Your task to perform on an android device: What's the news in Puerto Rico? Image 0: 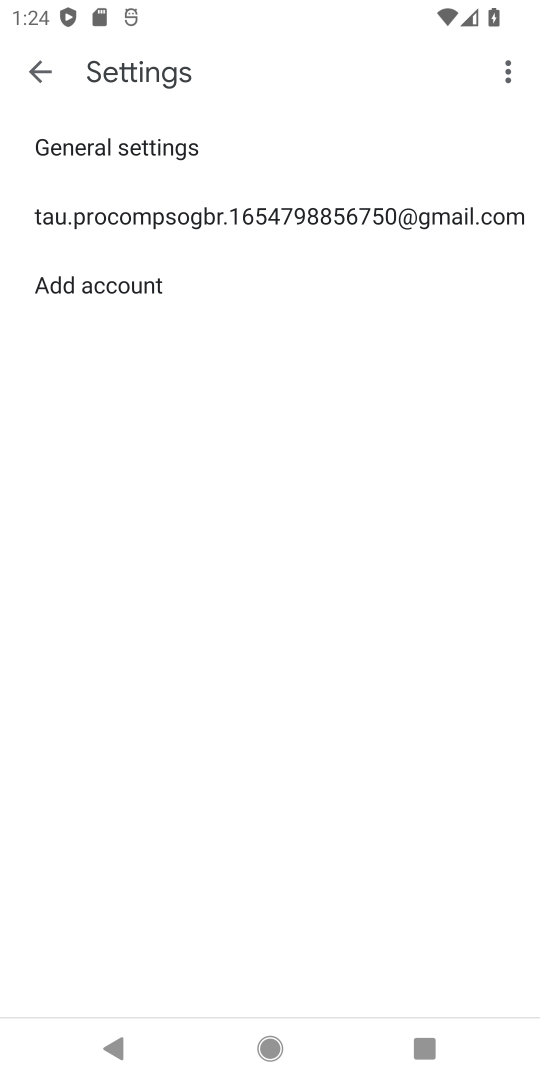
Step 0: press home button
Your task to perform on an android device: What's the news in Puerto Rico? Image 1: 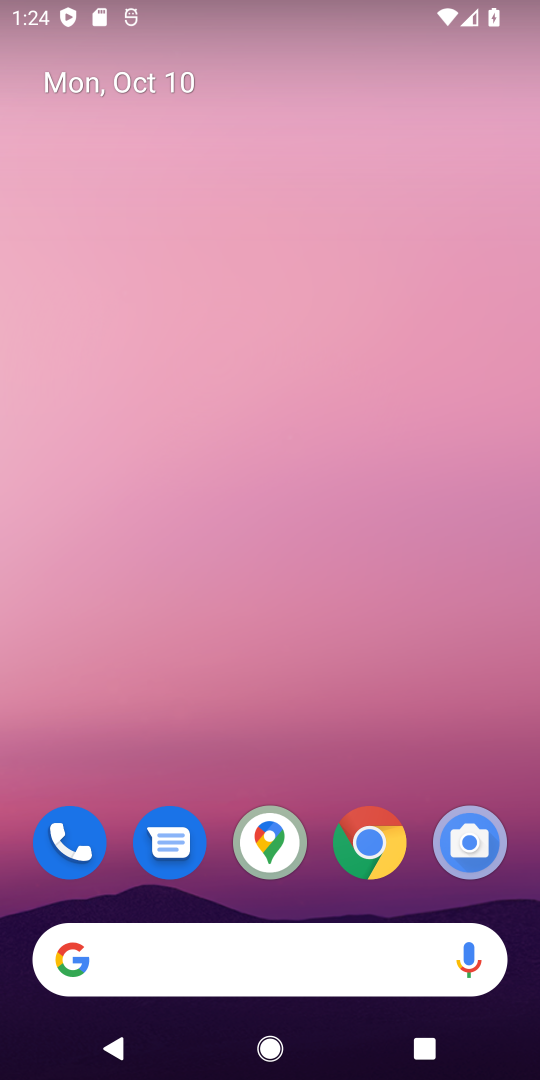
Step 1: click (372, 845)
Your task to perform on an android device: What's the news in Puerto Rico? Image 2: 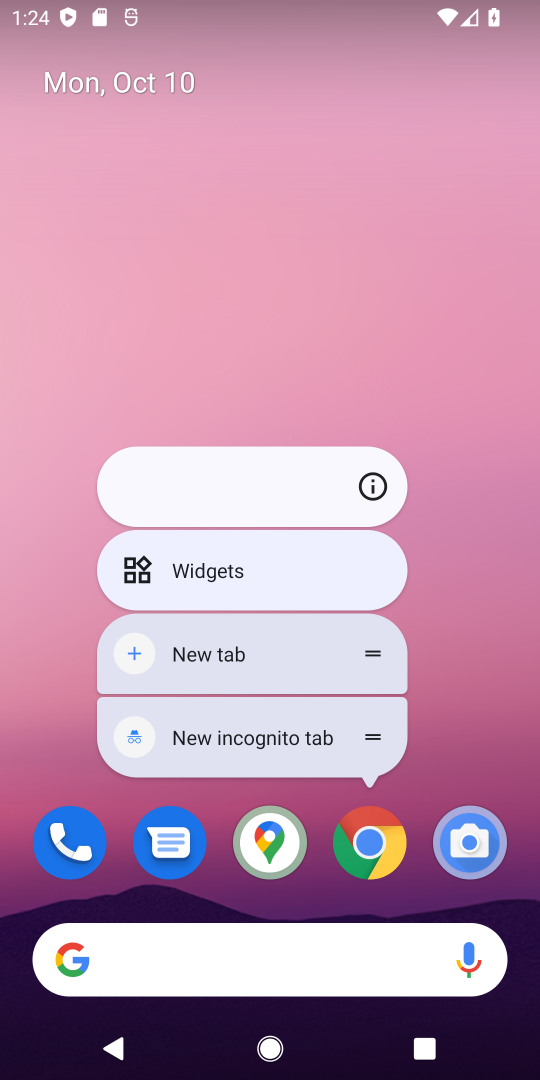
Step 2: click (385, 855)
Your task to perform on an android device: What's the news in Puerto Rico? Image 3: 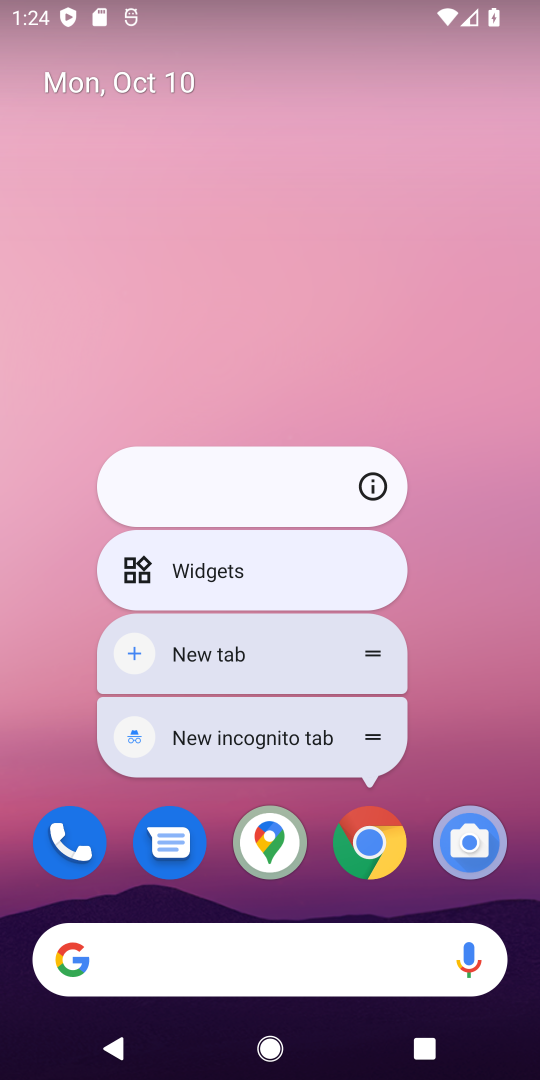
Step 3: click (385, 856)
Your task to perform on an android device: What's the news in Puerto Rico? Image 4: 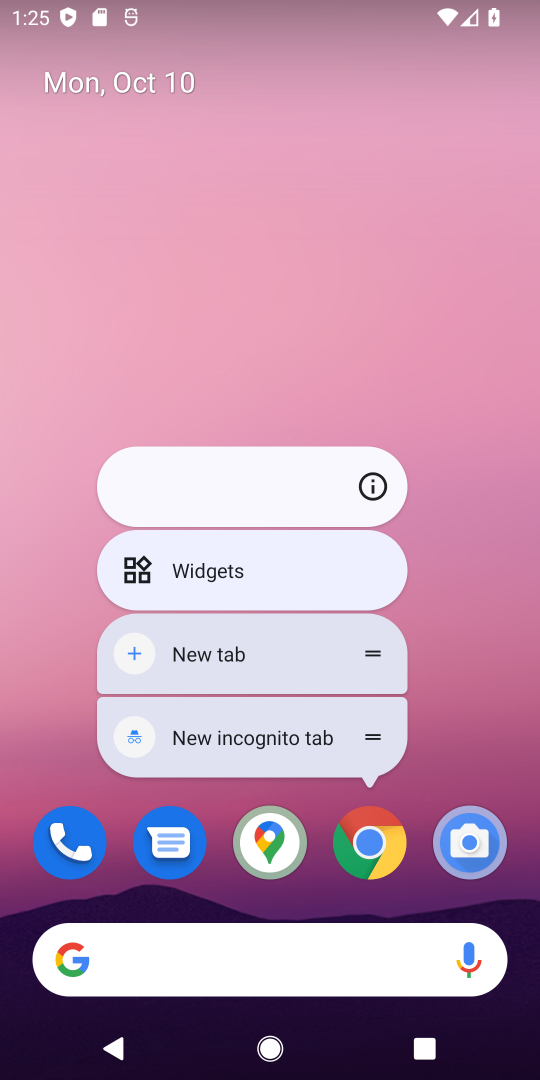
Step 4: click (371, 860)
Your task to perform on an android device: What's the news in Puerto Rico? Image 5: 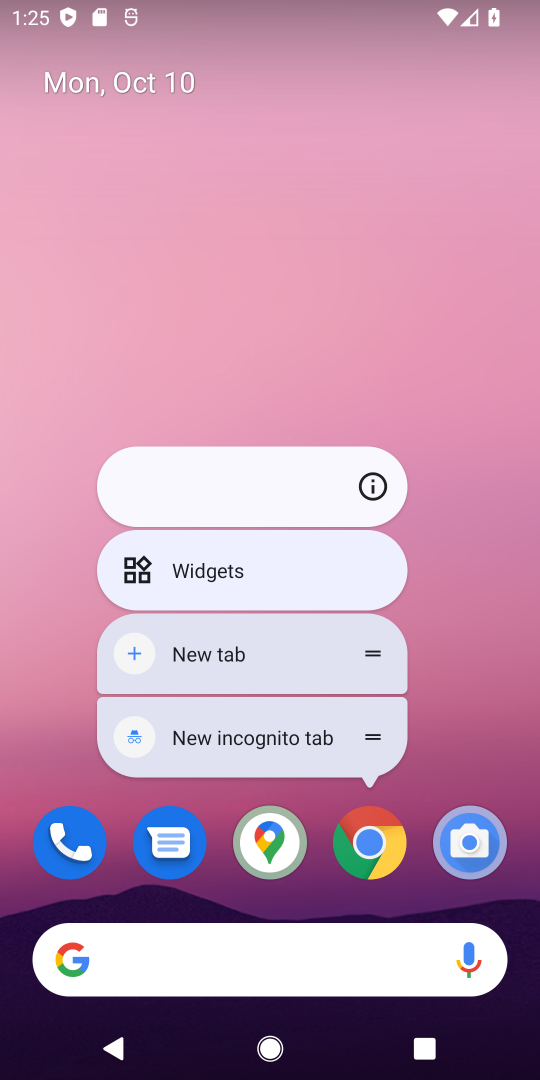
Step 5: click (371, 860)
Your task to perform on an android device: What's the news in Puerto Rico? Image 6: 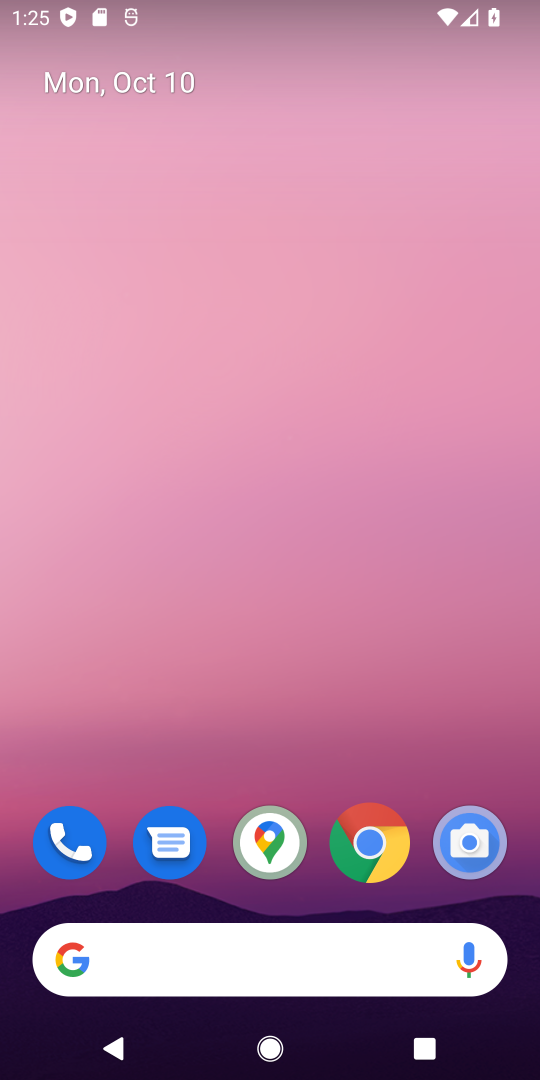
Step 6: click (370, 854)
Your task to perform on an android device: What's the news in Puerto Rico? Image 7: 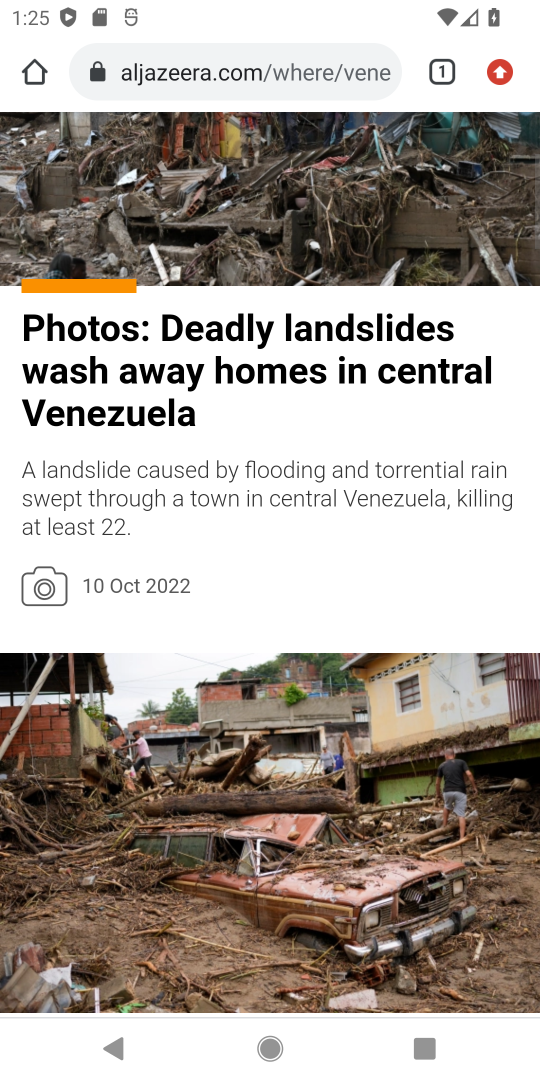
Step 7: click (273, 72)
Your task to perform on an android device: What's the news in Puerto Rico? Image 8: 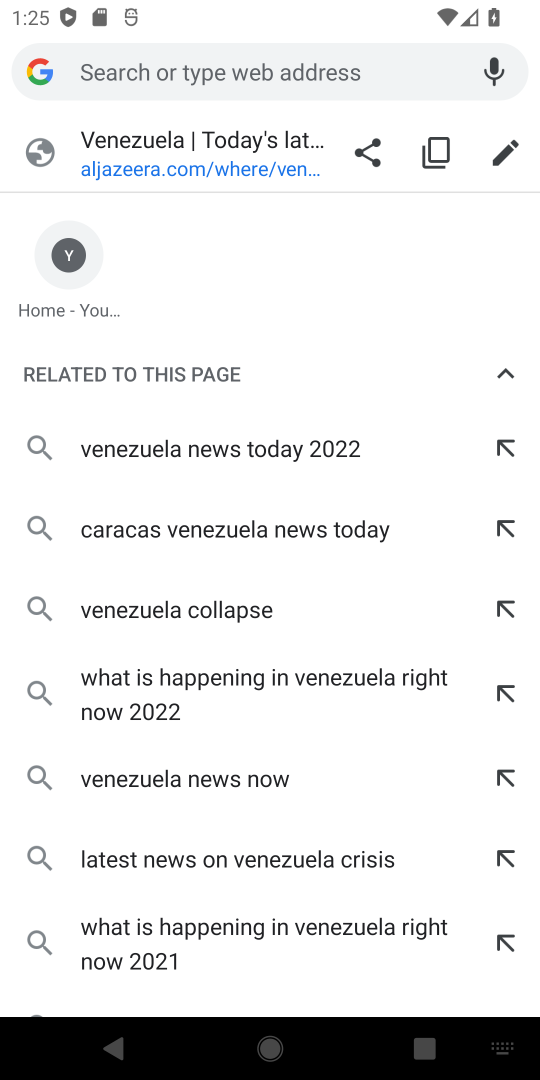
Step 8: type "news in Puerto Rico"
Your task to perform on an android device: What's the news in Puerto Rico? Image 9: 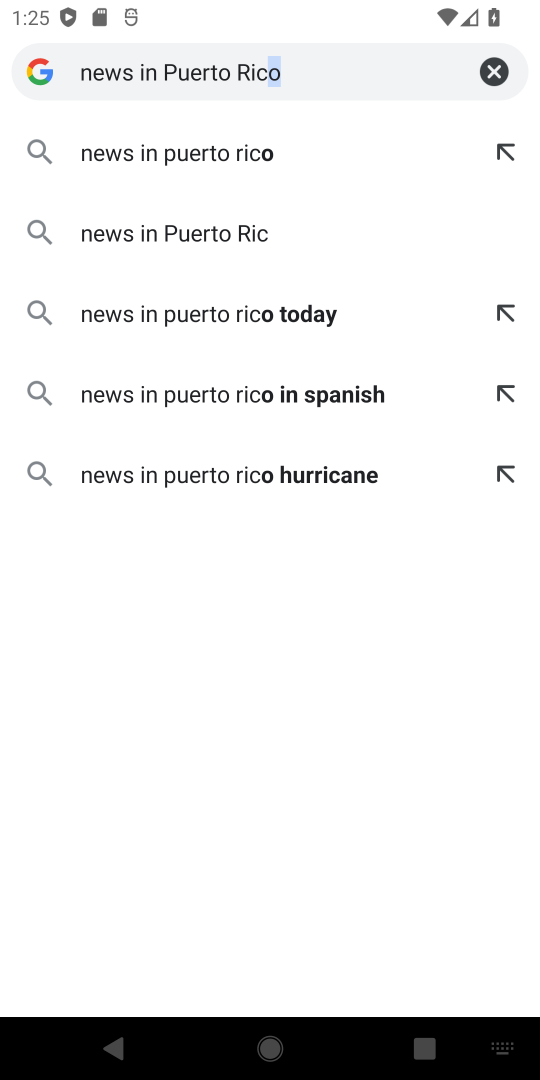
Step 9: type ""
Your task to perform on an android device: What's the news in Puerto Rico? Image 10: 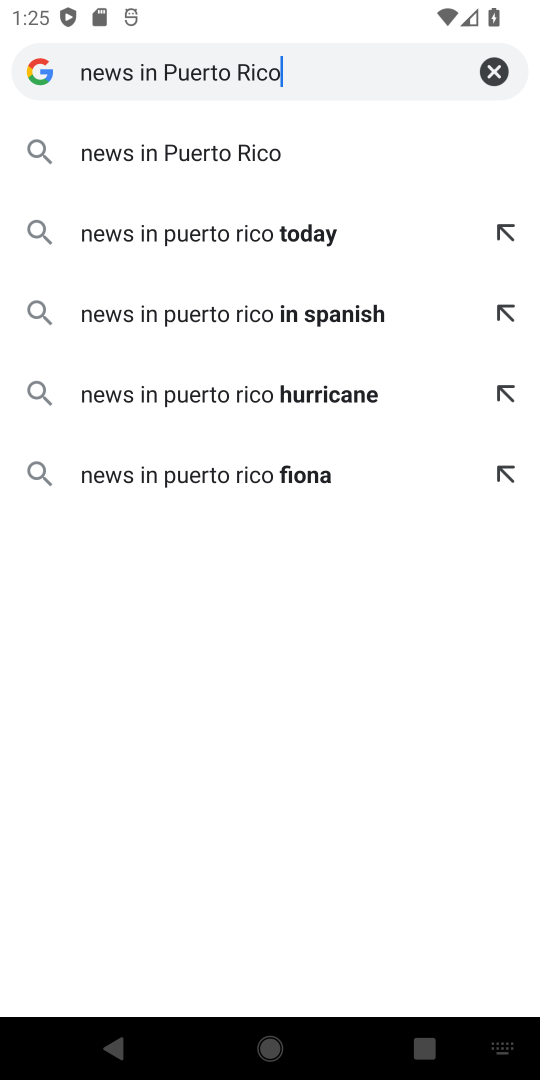
Step 10: press enter
Your task to perform on an android device: What's the news in Puerto Rico? Image 11: 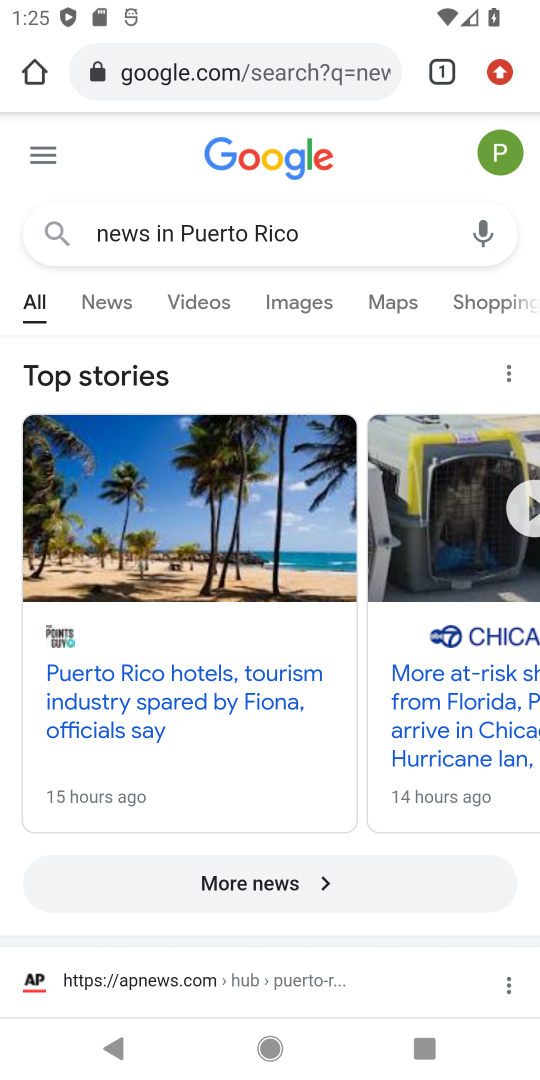
Step 11: drag from (254, 809) to (277, 718)
Your task to perform on an android device: What's the news in Puerto Rico? Image 12: 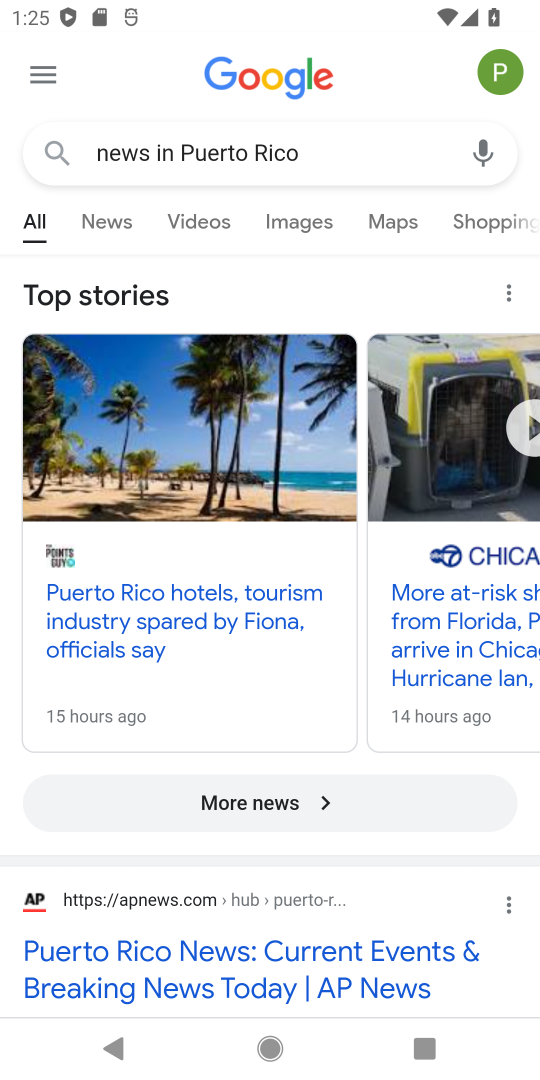
Step 12: click (119, 223)
Your task to perform on an android device: What's the news in Puerto Rico? Image 13: 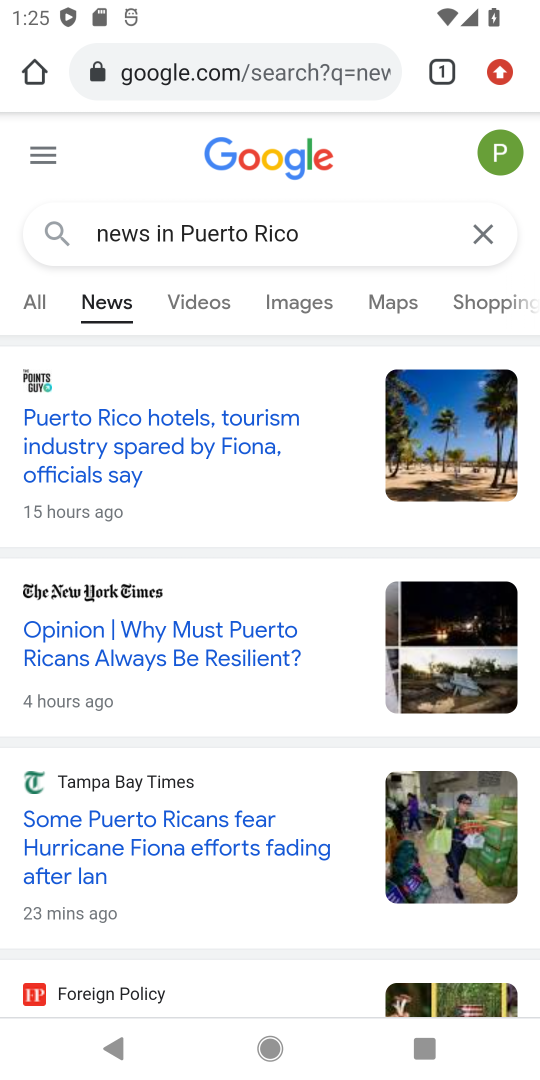
Step 13: task complete